Your task to perform on an android device: change alarm snooze length Image 0: 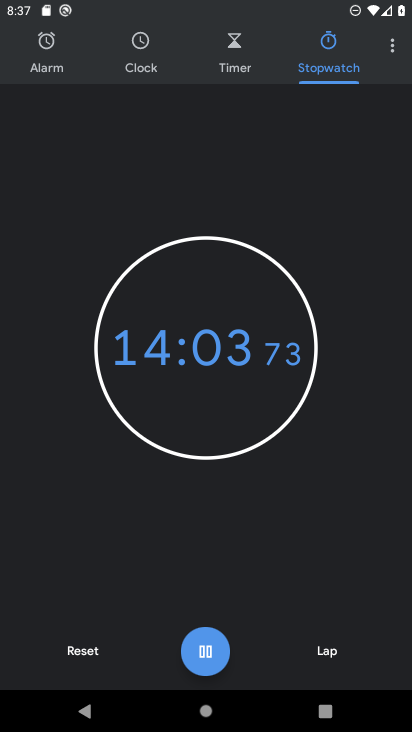
Step 0: click (392, 59)
Your task to perform on an android device: change alarm snooze length Image 1: 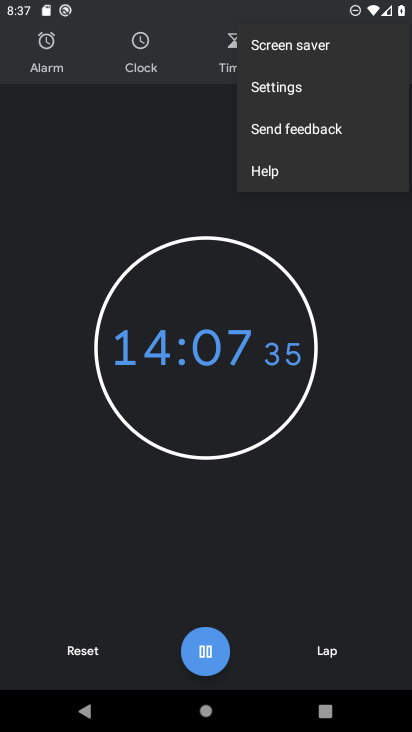
Step 1: click (284, 86)
Your task to perform on an android device: change alarm snooze length Image 2: 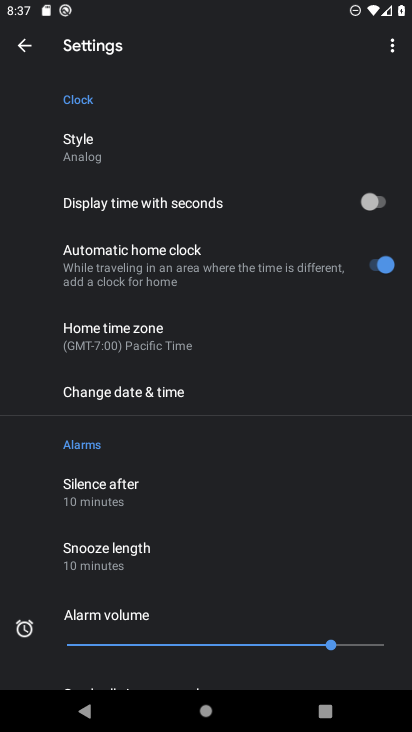
Step 2: drag from (178, 586) to (173, 321)
Your task to perform on an android device: change alarm snooze length Image 3: 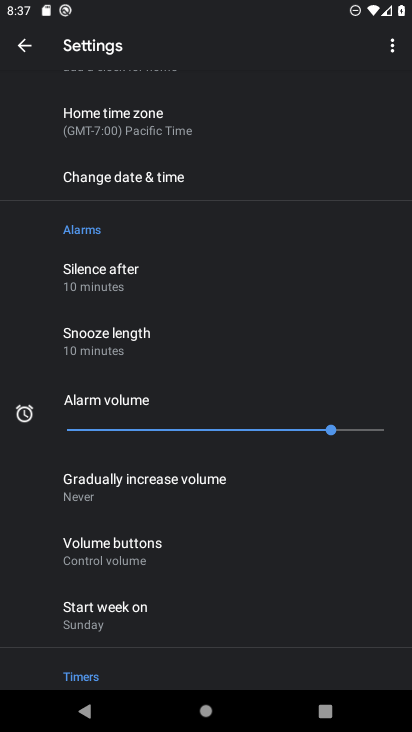
Step 3: drag from (178, 655) to (178, 259)
Your task to perform on an android device: change alarm snooze length Image 4: 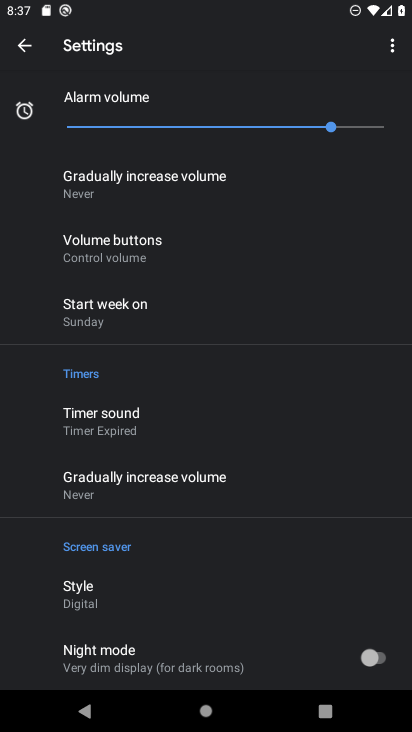
Step 4: drag from (155, 644) to (151, 297)
Your task to perform on an android device: change alarm snooze length Image 5: 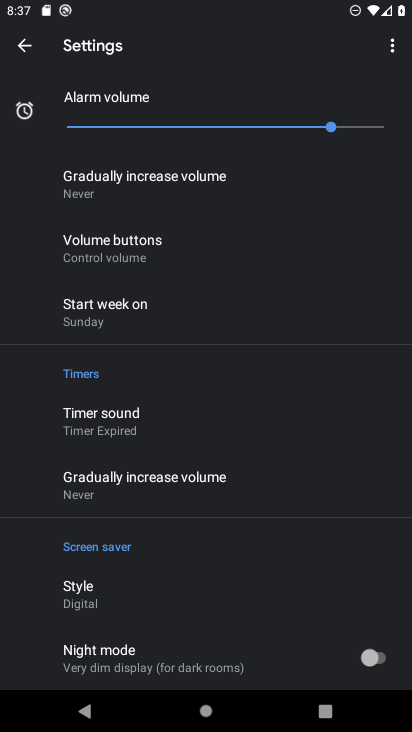
Step 5: drag from (267, 238) to (258, 571)
Your task to perform on an android device: change alarm snooze length Image 6: 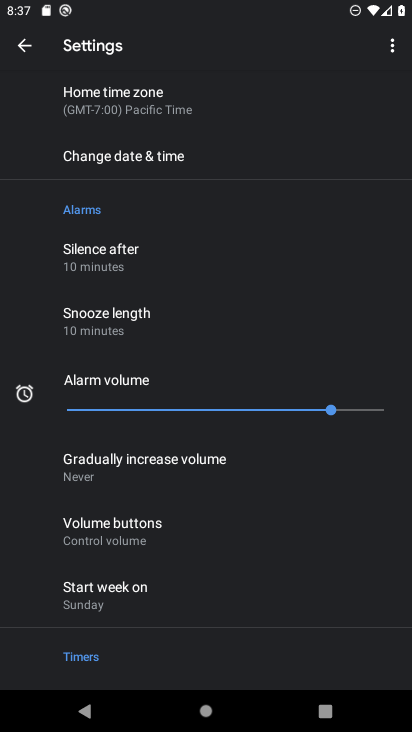
Step 6: click (125, 315)
Your task to perform on an android device: change alarm snooze length Image 7: 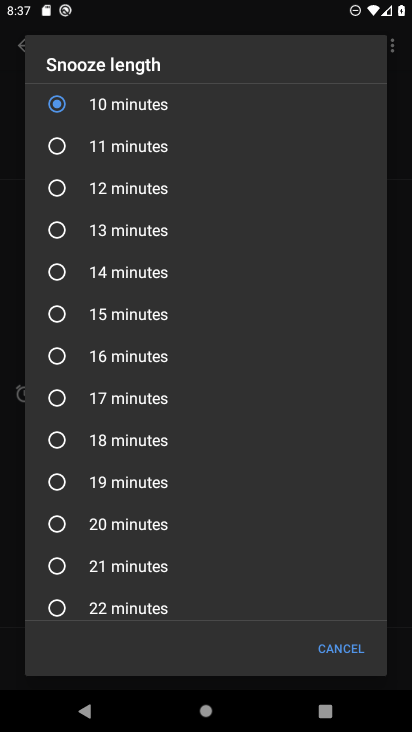
Step 7: click (63, 441)
Your task to perform on an android device: change alarm snooze length Image 8: 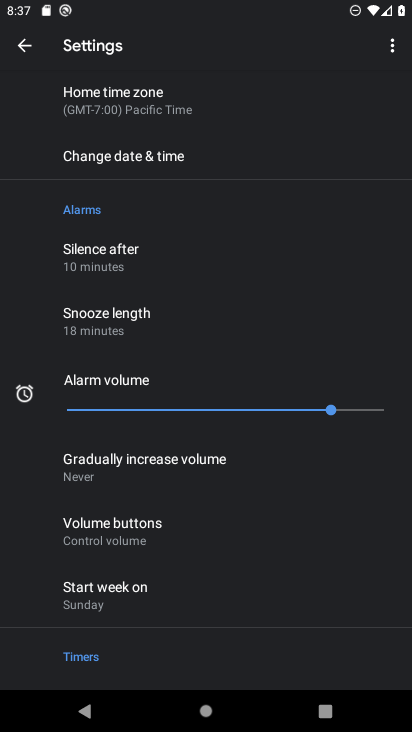
Step 8: task complete